Your task to perform on an android device: set default search engine in the chrome app Image 0: 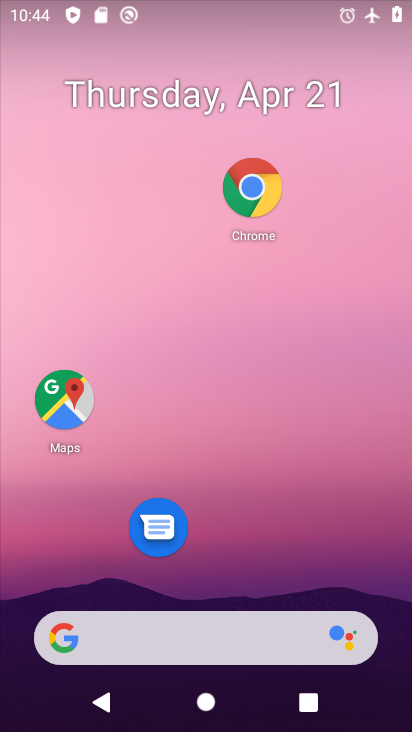
Step 0: click (269, 210)
Your task to perform on an android device: set default search engine in the chrome app Image 1: 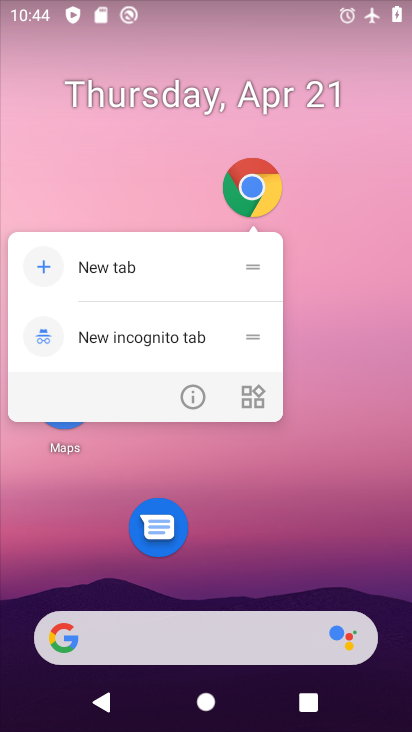
Step 1: click (266, 198)
Your task to perform on an android device: set default search engine in the chrome app Image 2: 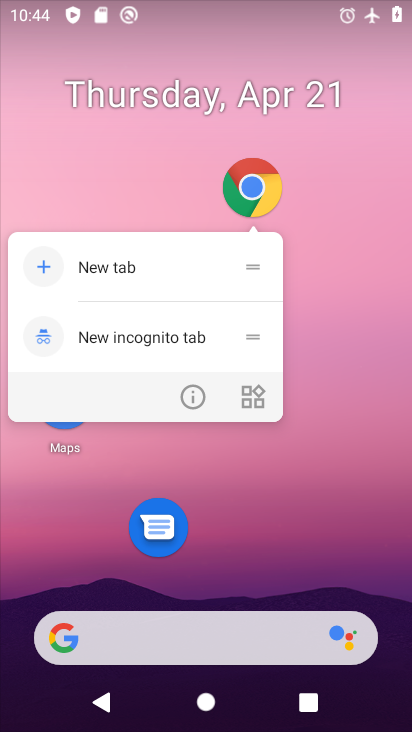
Step 2: click (247, 180)
Your task to perform on an android device: set default search engine in the chrome app Image 3: 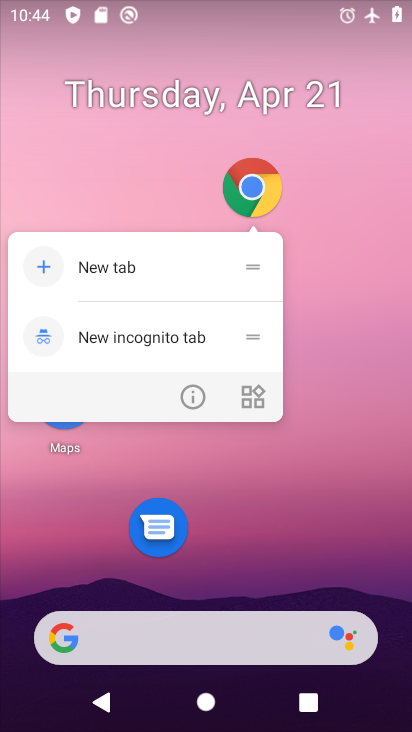
Step 3: click (236, 197)
Your task to perform on an android device: set default search engine in the chrome app Image 4: 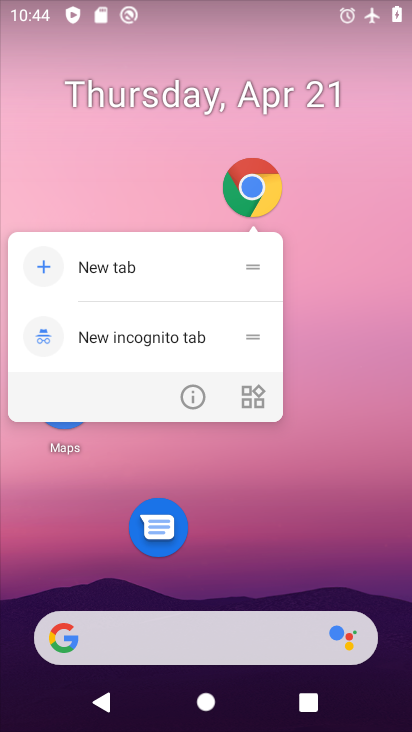
Step 4: click (264, 204)
Your task to perform on an android device: set default search engine in the chrome app Image 5: 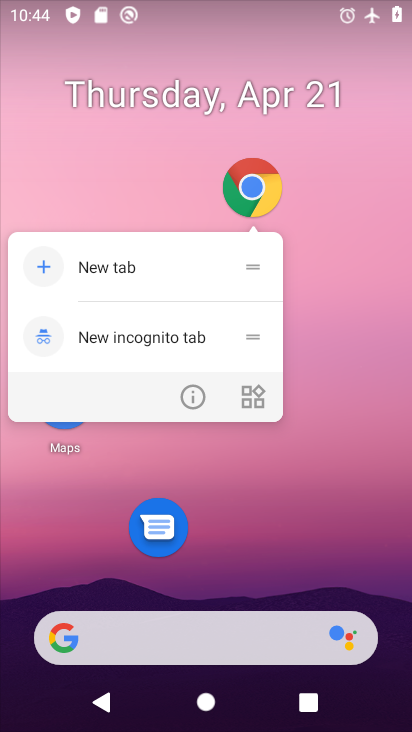
Step 5: click (258, 184)
Your task to perform on an android device: set default search engine in the chrome app Image 6: 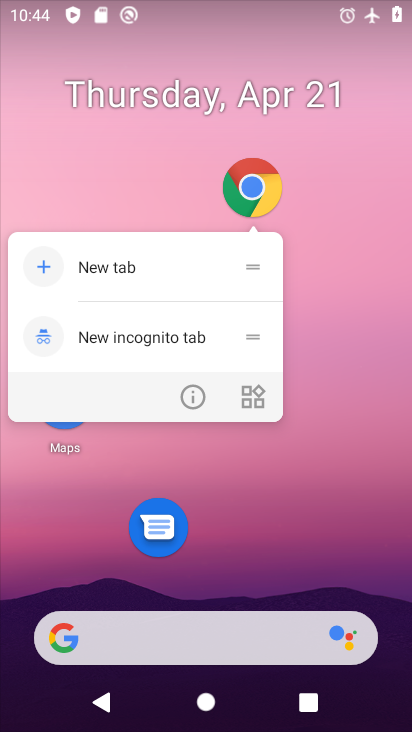
Step 6: click (257, 193)
Your task to perform on an android device: set default search engine in the chrome app Image 7: 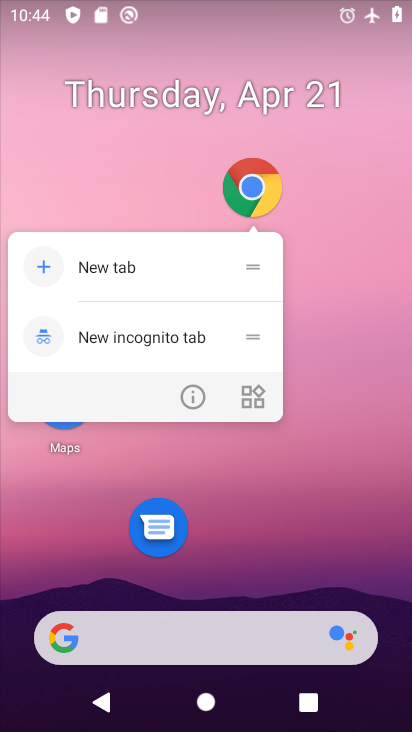
Step 7: click (260, 206)
Your task to perform on an android device: set default search engine in the chrome app Image 8: 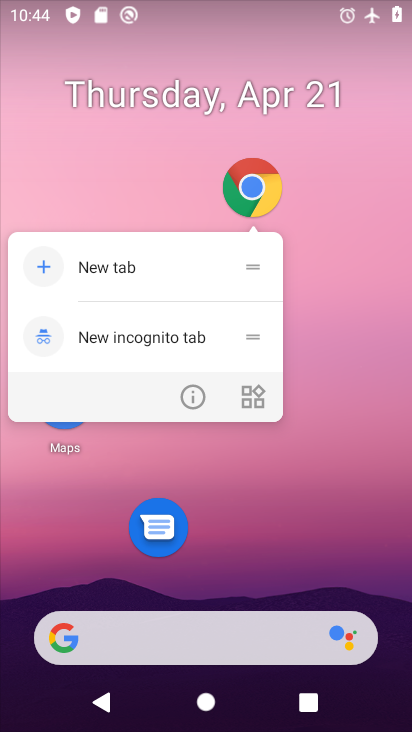
Step 8: click (260, 206)
Your task to perform on an android device: set default search engine in the chrome app Image 9: 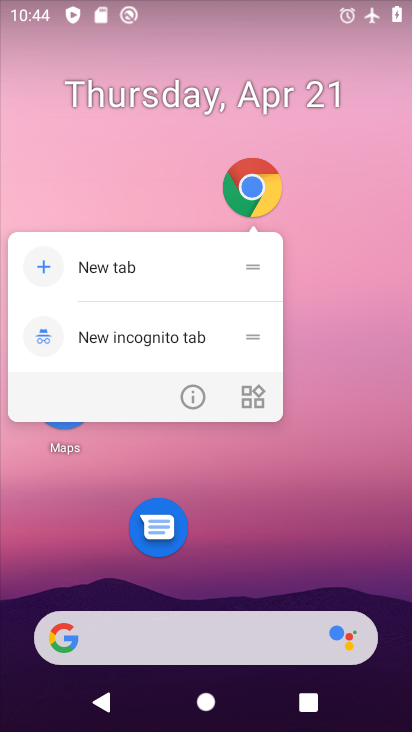
Step 9: click (264, 194)
Your task to perform on an android device: set default search engine in the chrome app Image 10: 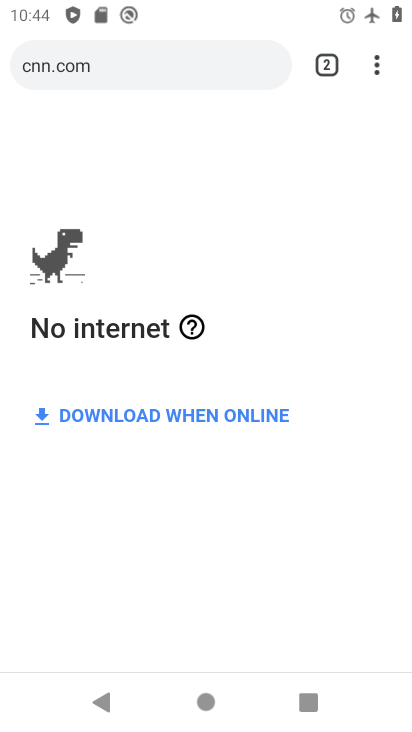
Step 10: click (371, 66)
Your task to perform on an android device: set default search engine in the chrome app Image 11: 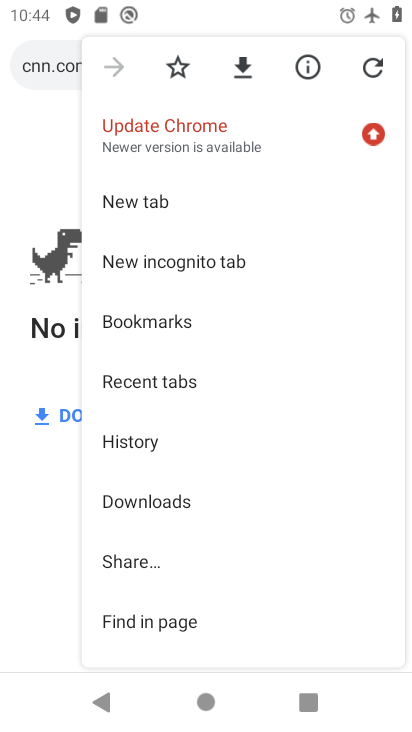
Step 11: drag from (227, 479) to (289, 142)
Your task to perform on an android device: set default search engine in the chrome app Image 12: 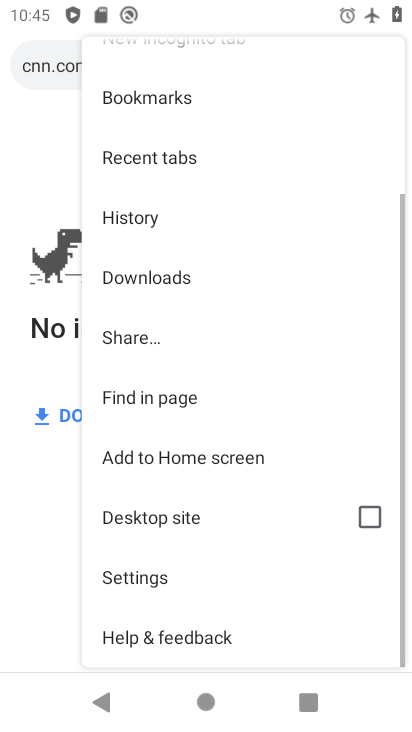
Step 12: click (219, 573)
Your task to perform on an android device: set default search engine in the chrome app Image 13: 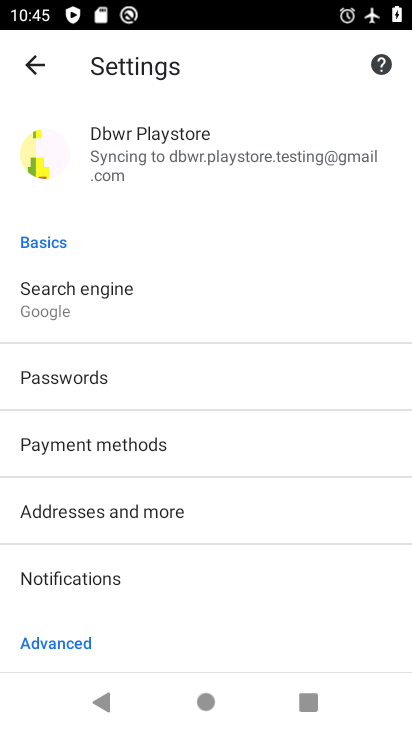
Step 13: click (193, 299)
Your task to perform on an android device: set default search engine in the chrome app Image 14: 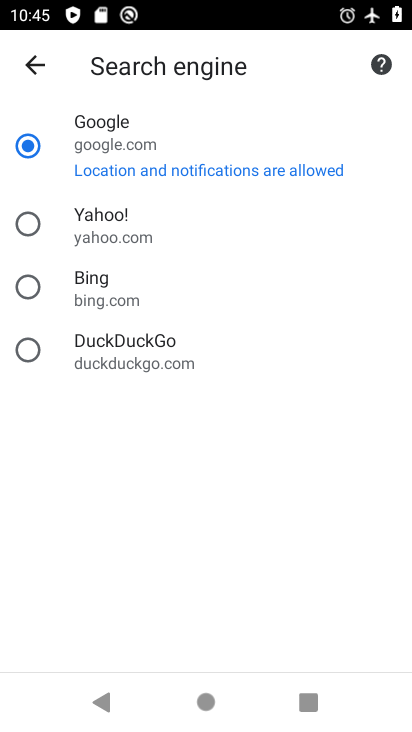
Step 14: task complete